Your task to perform on an android device: check android version Image 0: 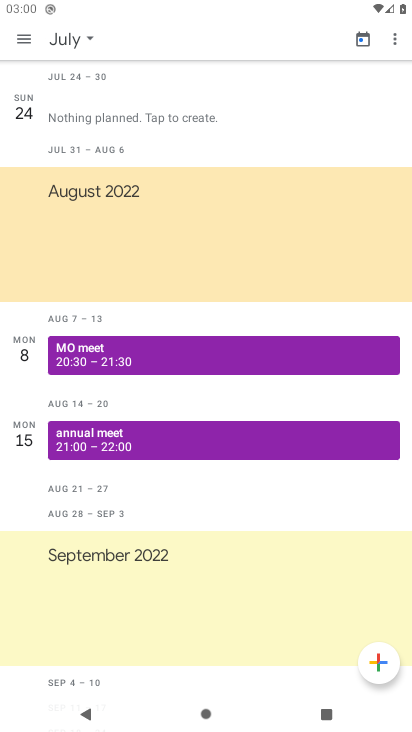
Step 0: press home button
Your task to perform on an android device: check android version Image 1: 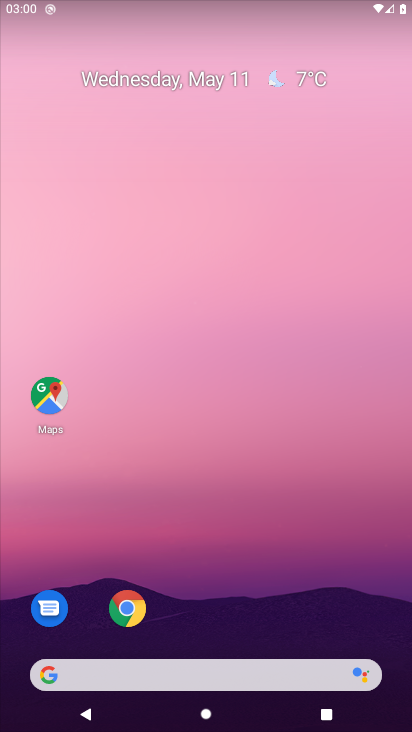
Step 1: drag from (210, 619) to (254, 87)
Your task to perform on an android device: check android version Image 2: 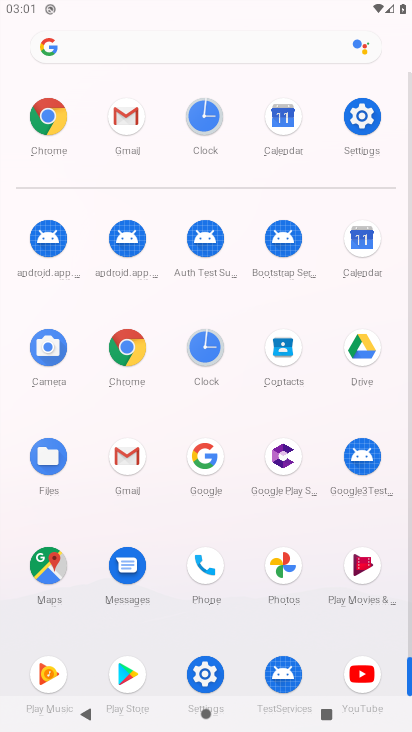
Step 2: click (359, 116)
Your task to perform on an android device: check android version Image 3: 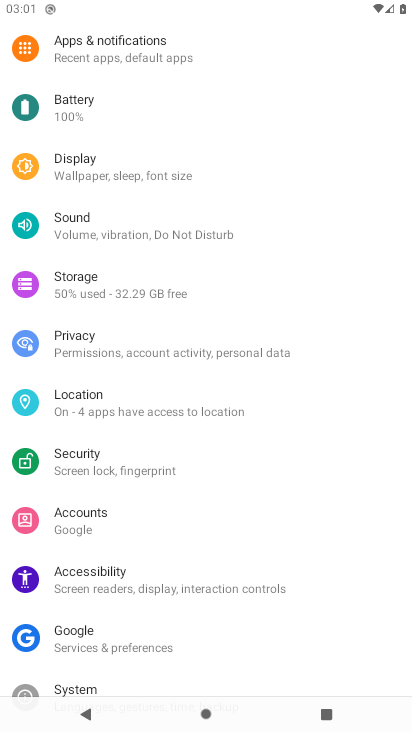
Step 3: drag from (137, 655) to (199, 183)
Your task to perform on an android device: check android version Image 4: 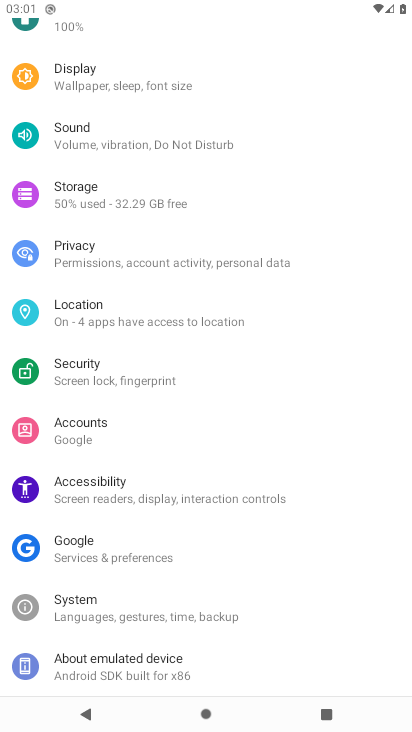
Step 4: click (182, 664)
Your task to perform on an android device: check android version Image 5: 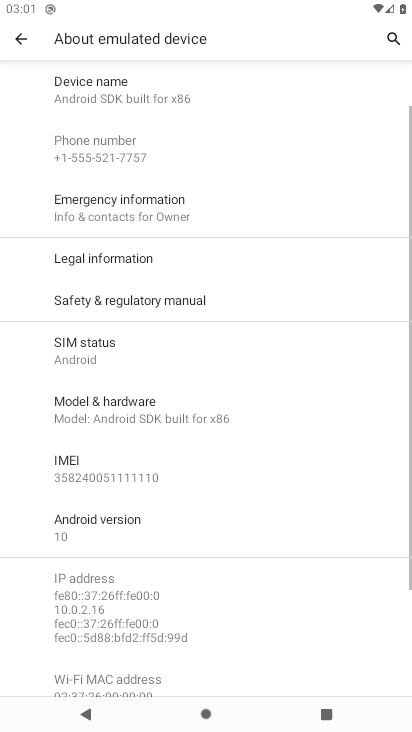
Step 5: click (111, 512)
Your task to perform on an android device: check android version Image 6: 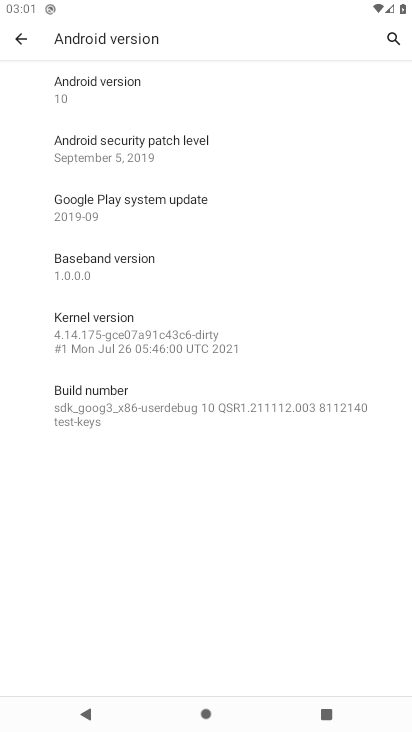
Step 6: task complete